Your task to perform on an android device: toggle data saver in the chrome app Image 0: 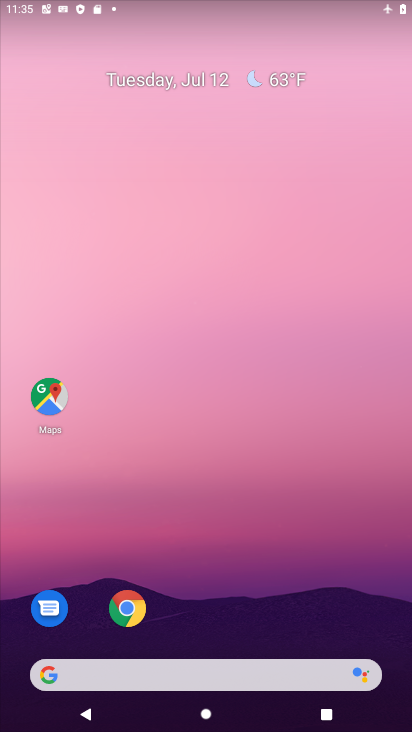
Step 0: click (124, 610)
Your task to perform on an android device: toggle data saver in the chrome app Image 1: 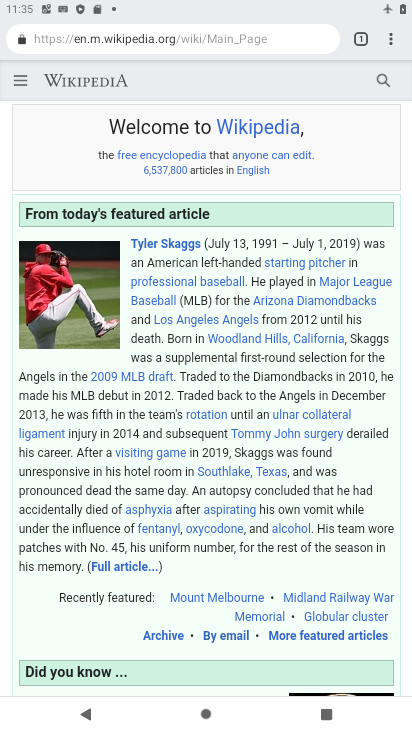
Step 1: click (386, 39)
Your task to perform on an android device: toggle data saver in the chrome app Image 2: 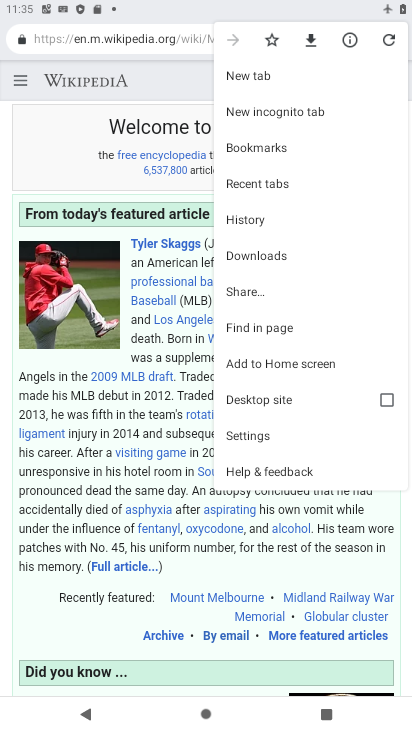
Step 2: click (254, 443)
Your task to perform on an android device: toggle data saver in the chrome app Image 3: 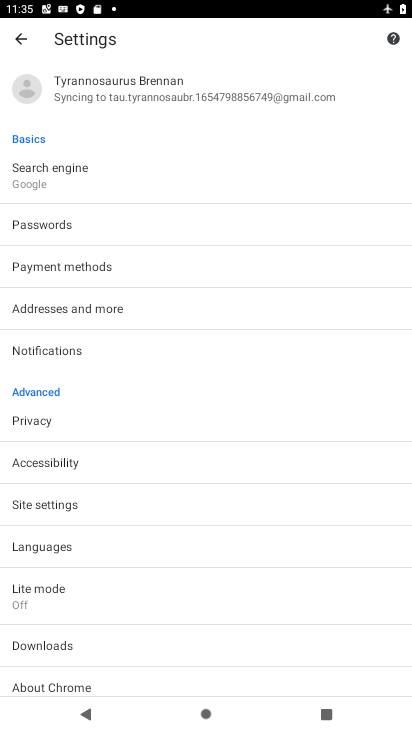
Step 3: click (70, 601)
Your task to perform on an android device: toggle data saver in the chrome app Image 4: 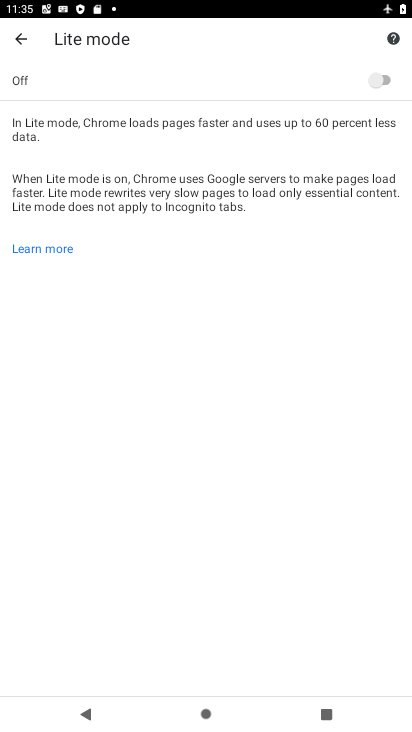
Step 4: click (371, 88)
Your task to perform on an android device: toggle data saver in the chrome app Image 5: 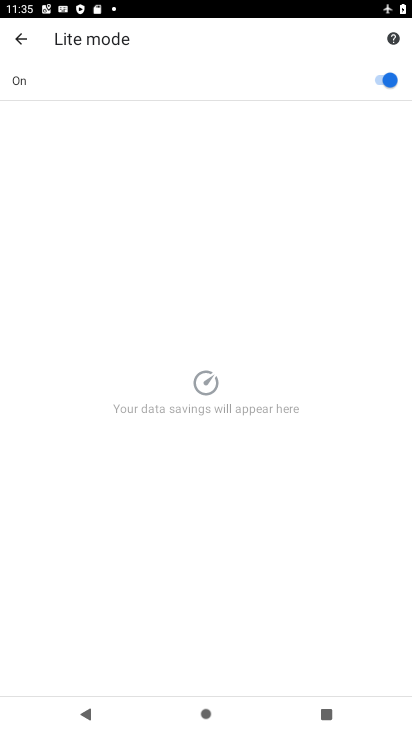
Step 5: task complete